Your task to perform on an android device: turn on the 12-hour format for clock Image 0: 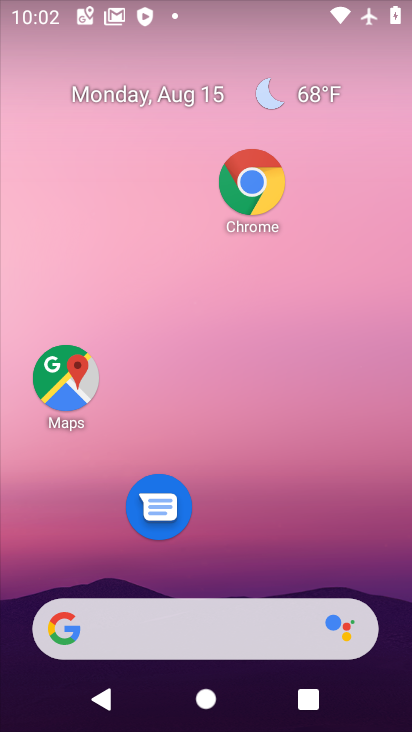
Step 0: drag from (272, 576) to (298, 1)
Your task to perform on an android device: turn on the 12-hour format for clock Image 1: 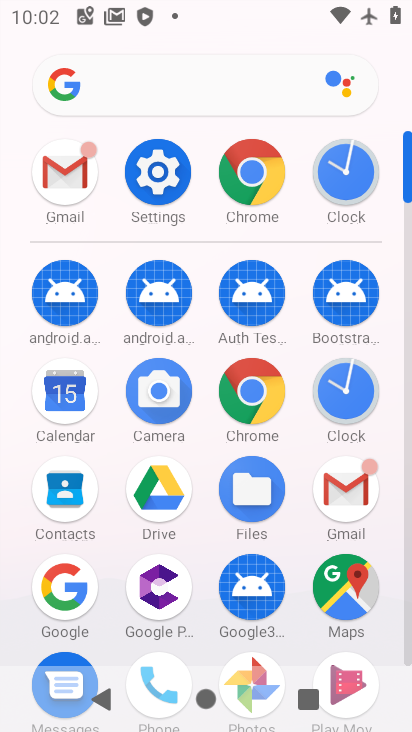
Step 1: click (371, 155)
Your task to perform on an android device: turn on the 12-hour format for clock Image 2: 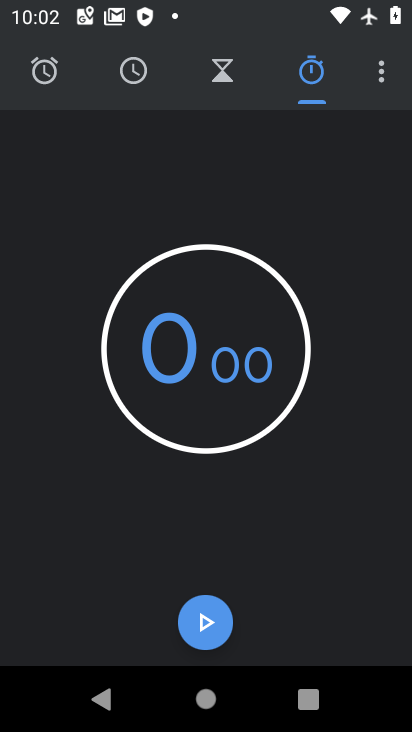
Step 2: task complete